Your task to perform on an android device: What's on my calendar tomorrow? Image 0: 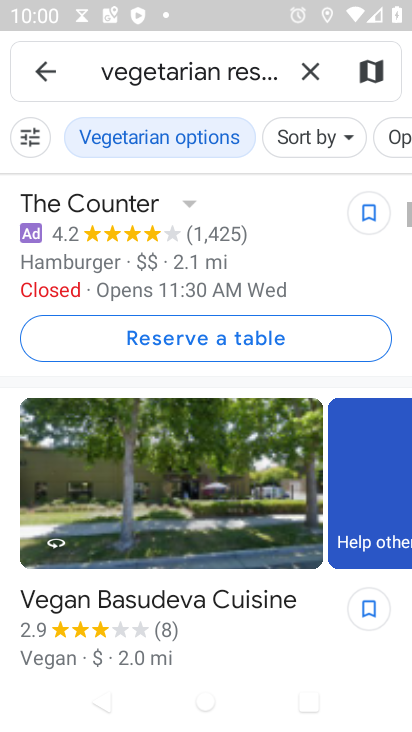
Step 0: press home button
Your task to perform on an android device: What's on my calendar tomorrow? Image 1: 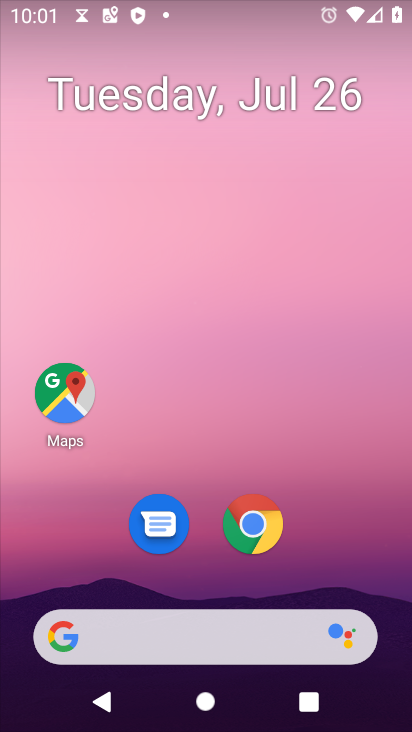
Step 1: drag from (168, 642) to (334, 164)
Your task to perform on an android device: What's on my calendar tomorrow? Image 2: 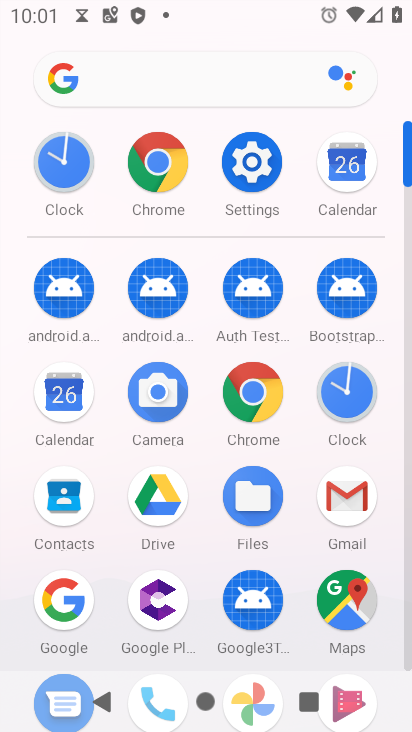
Step 2: click (63, 400)
Your task to perform on an android device: What's on my calendar tomorrow? Image 3: 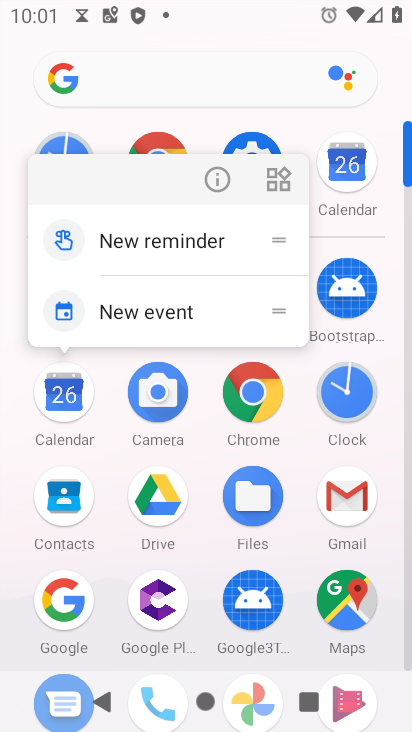
Step 3: click (65, 399)
Your task to perform on an android device: What's on my calendar tomorrow? Image 4: 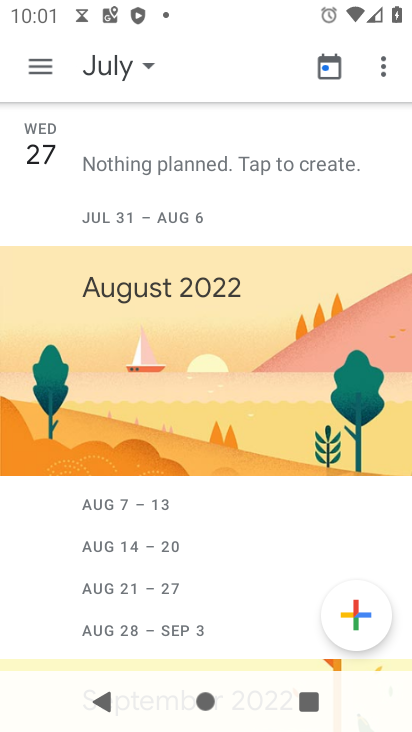
Step 4: task complete